Your task to perform on an android device: turn vacation reply on in the gmail app Image 0: 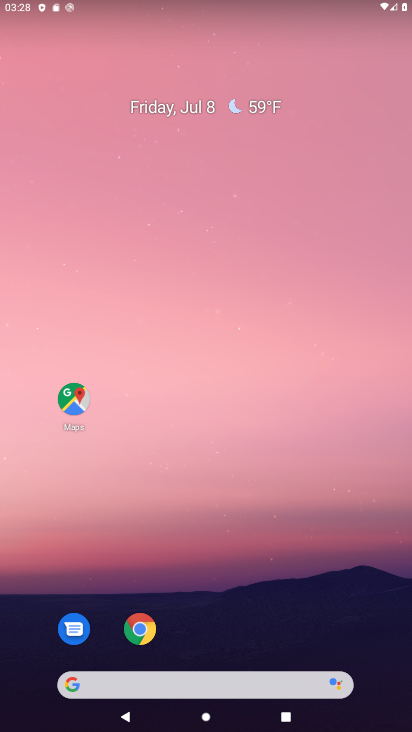
Step 0: drag from (212, 649) to (278, 60)
Your task to perform on an android device: turn vacation reply on in the gmail app Image 1: 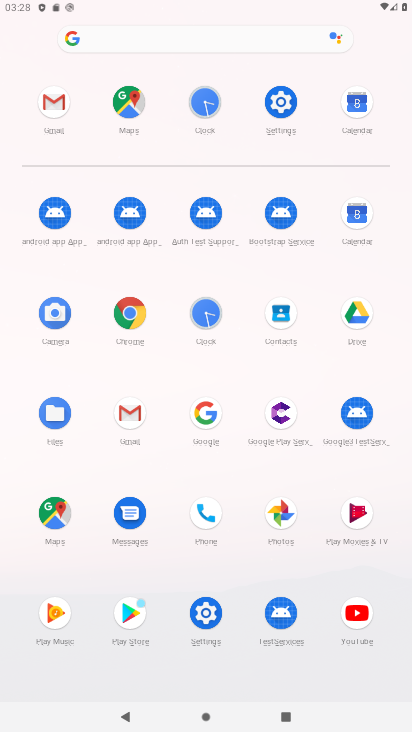
Step 1: click (50, 101)
Your task to perform on an android device: turn vacation reply on in the gmail app Image 2: 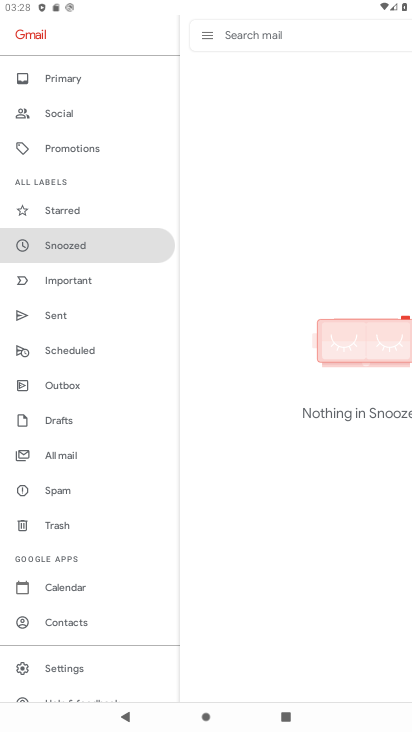
Step 2: drag from (94, 664) to (136, 208)
Your task to perform on an android device: turn vacation reply on in the gmail app Image 3: 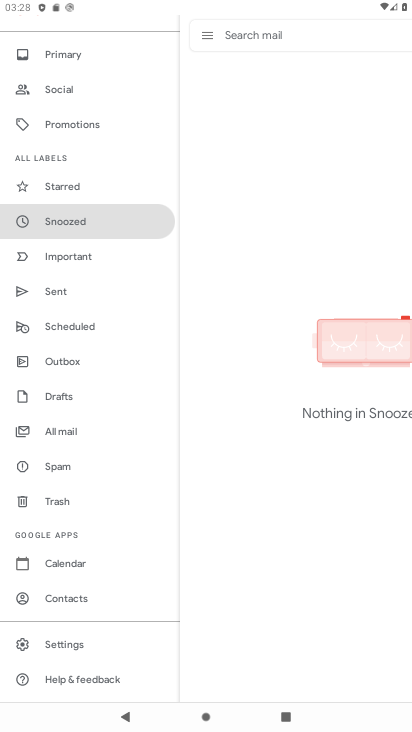
Step 3: click (94, 640)
Your task to perform on an android device: turn vacation reply on in the gmail app Image 4: 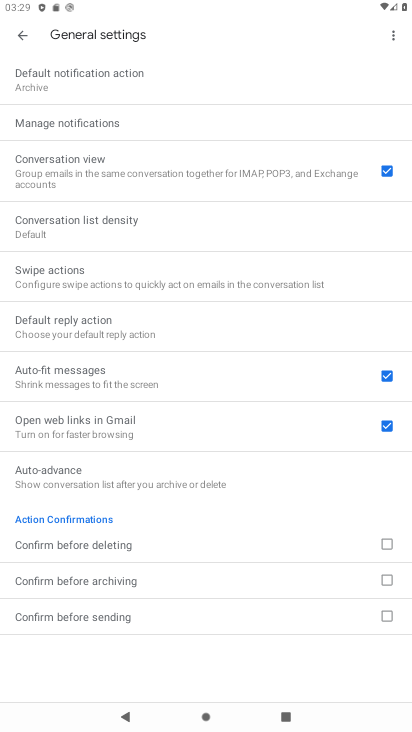
Step 4: click (24, 34)
Your task to perform on an android device: turn vacation reply on in the gmail app Image 5: 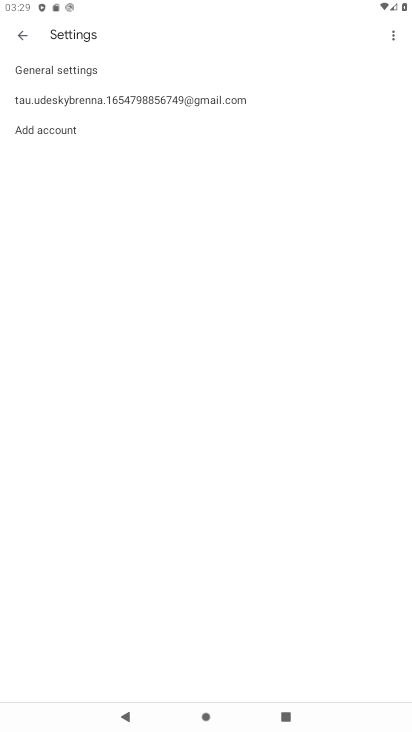
Step 5: click (111, 96)
Your task to perform on an android device: turn vacation reply on in the gmail app Image 6: 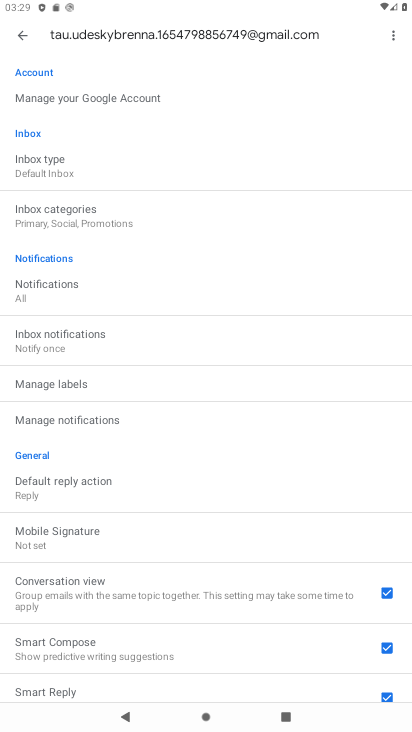
Step 6: drag from (153, 667) to (184, 163)
Your task to perform on an android device: turn vacation reply on in the gmail app Image 7: 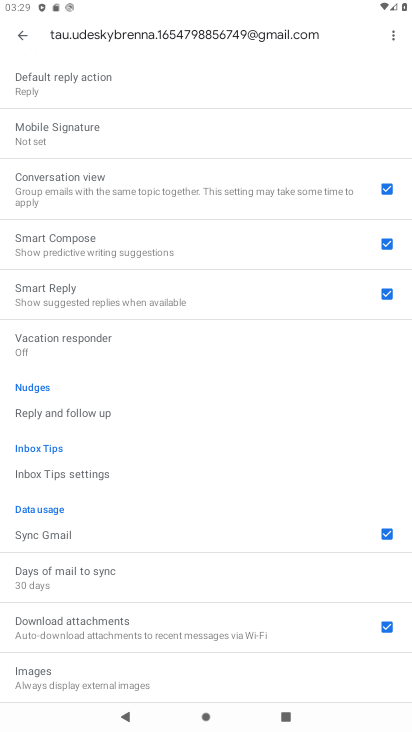
Step 7: click (90, 343)
Your task to perform on an android device: turn vacation reply on in the gmail app Image 8: 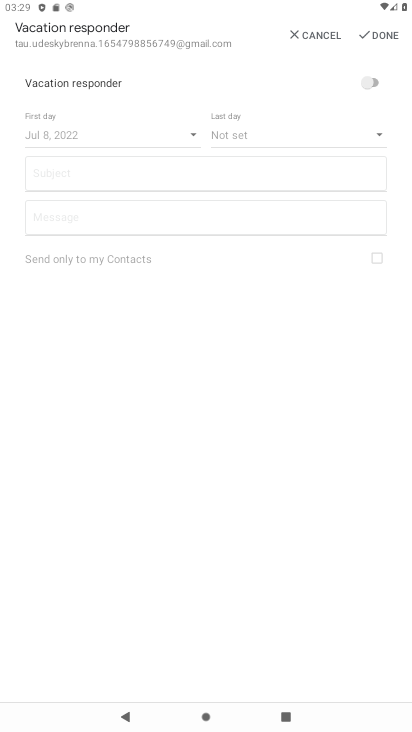
Step 8: click (368, 77)
Your task to perform on an android device: turn vacation reply on in the gmail app Image 9: 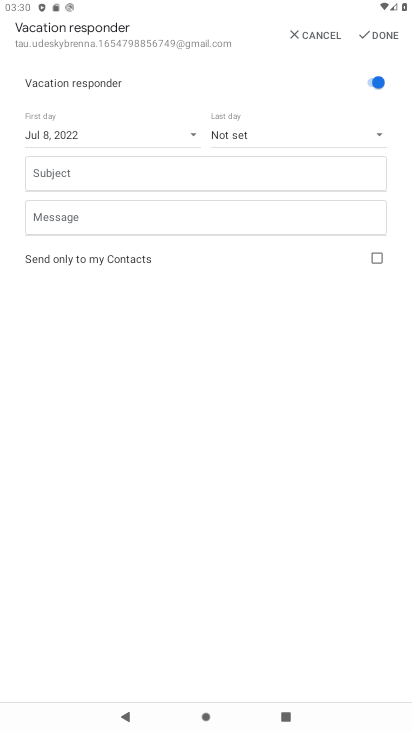
Step 9: task complete